Your task to perform on an android device: What is the news today? Image 0: 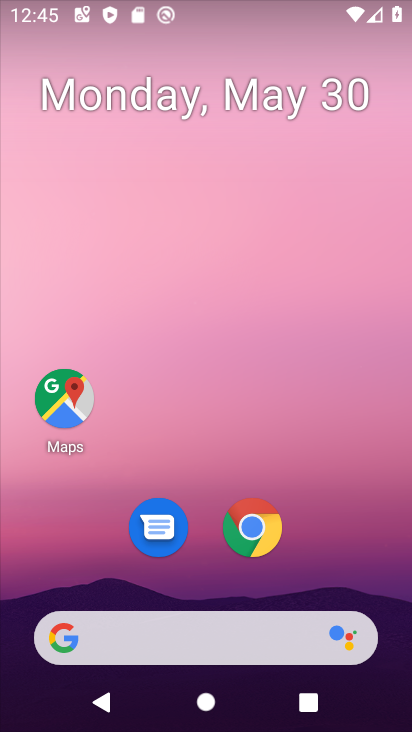
Step 0: drag from (203, 519) to (205, 276)
Your task to perform on an android device: What is the news today? Image 1: 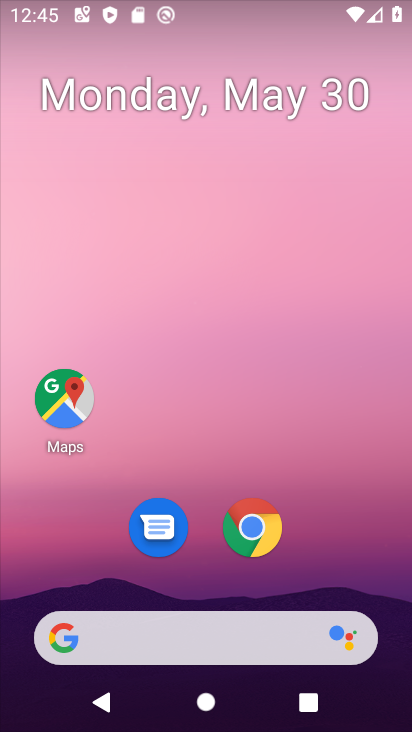
Step 1: drag from (200, 579) to (220, 264)
Your task to perform on an android device: What is the news today? Image 2: 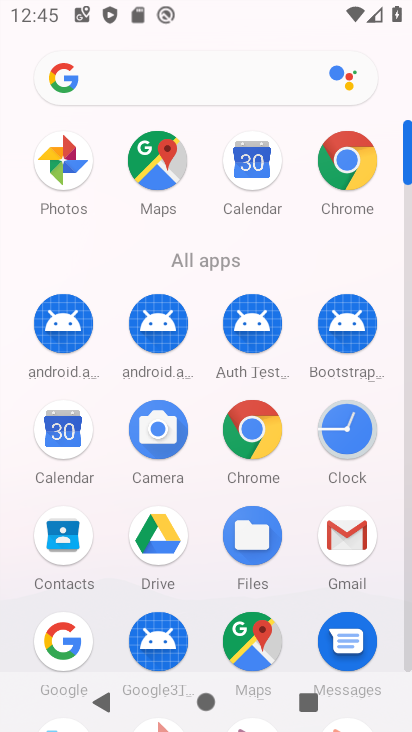
Step 2: click (63, 391)
Your task to perform on an android device: What is the news today? Image 3: 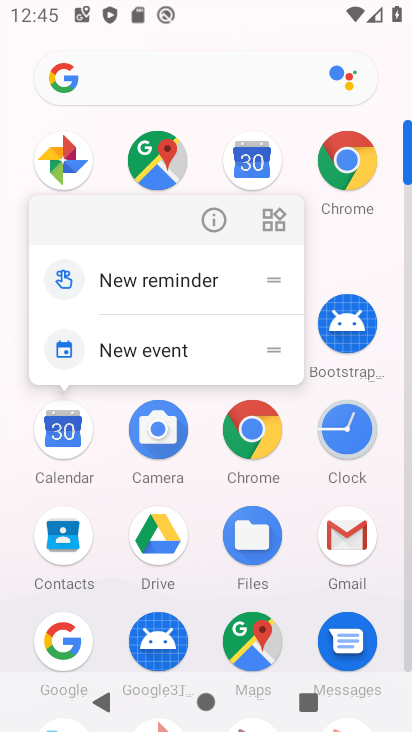
Step 3: click (212, 227)
Your task to perform on an android device: What is the news today? Image 4: 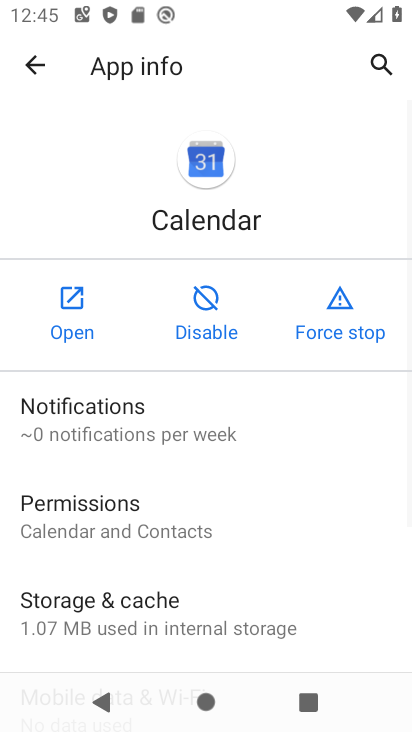
Step 4: press home button
Your task to perform on an android device: What is the news today? Image 5: 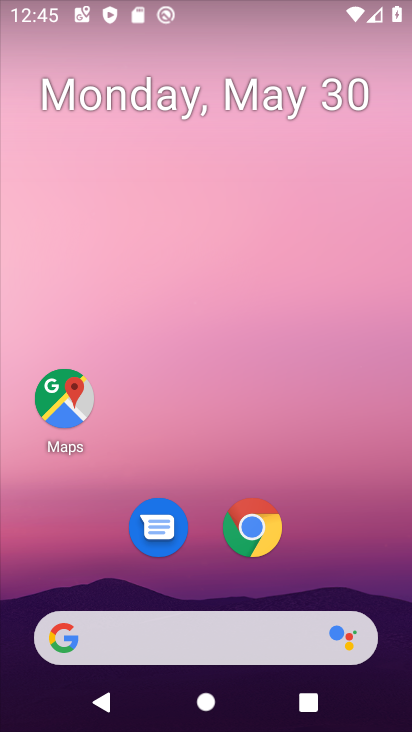
Step 5: drag from (204, 564) to (214, 179)
Your task to perform on an android device: What is the news today? Image 6: 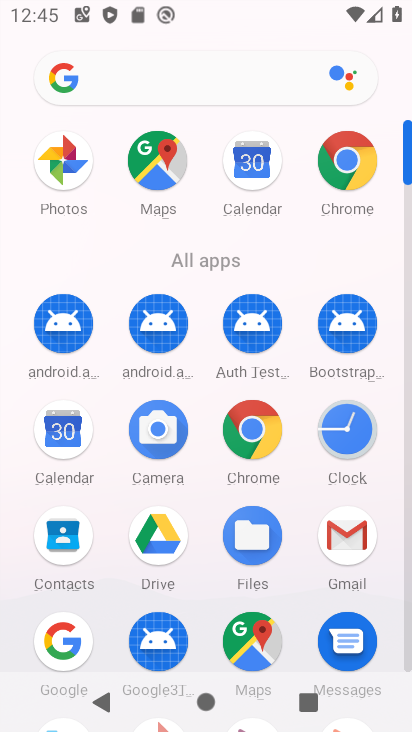
Step 6: click (137, 73)
Your task to perform on an android device: What is the news today? Image 7: 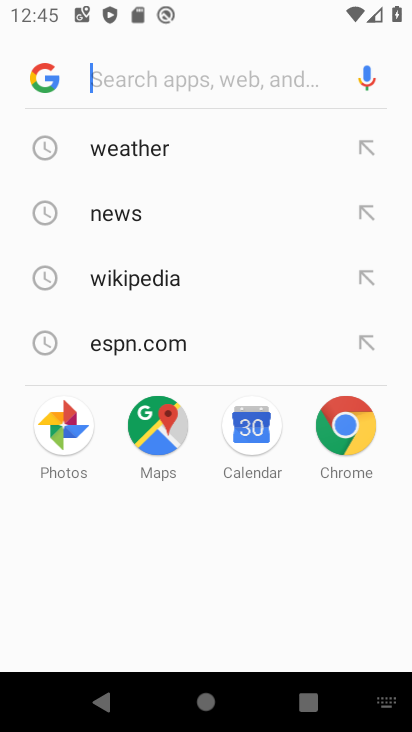
Step 7: click (124, 216)
Your task to perform on an android device: What is the news today? Image 8: 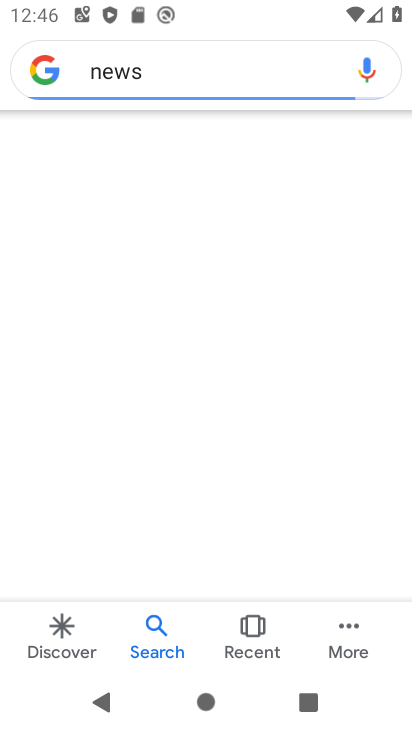
Step 8: task complete